Your task to perform on an android device: Open eBay Image 0: 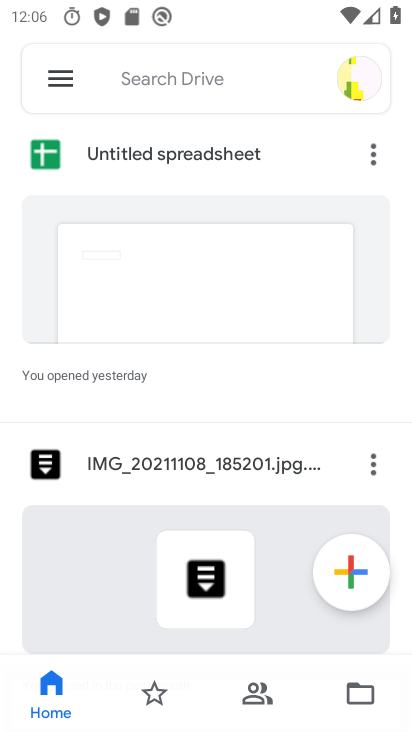
Step 0: press home button
Your task to perform on an android device: Open eBay Image 1: 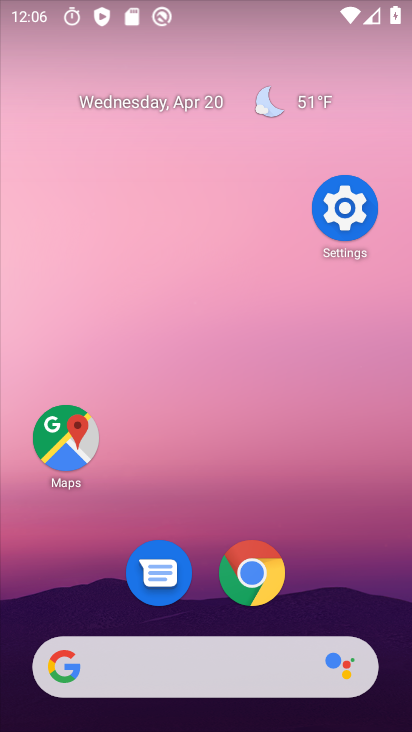
Step 1: click (259, 592)
Your task to perform on an android device: Open eBay Image 2: 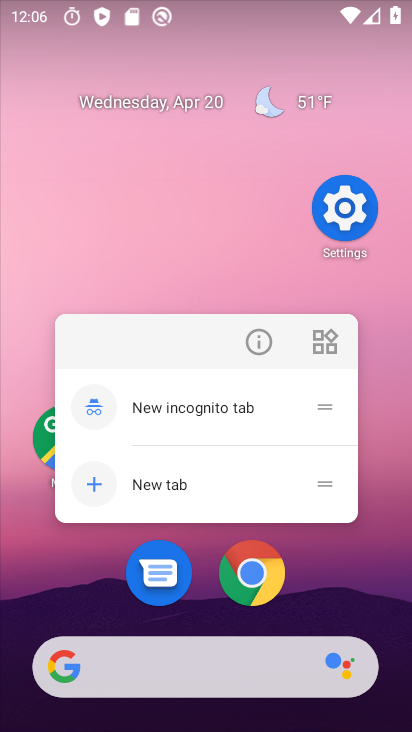
Step 2: click (236, 580)
Your task to perform on an android device: Open eBay Image 3: 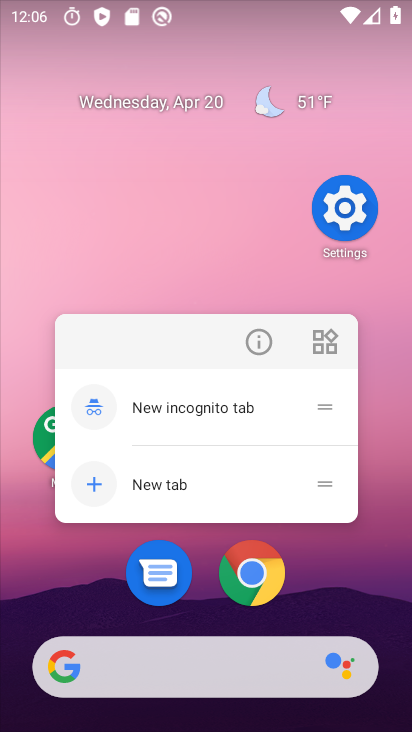
Step 3: click (232, 558)
Your task to perform on an android device: Open eBay Image 4: 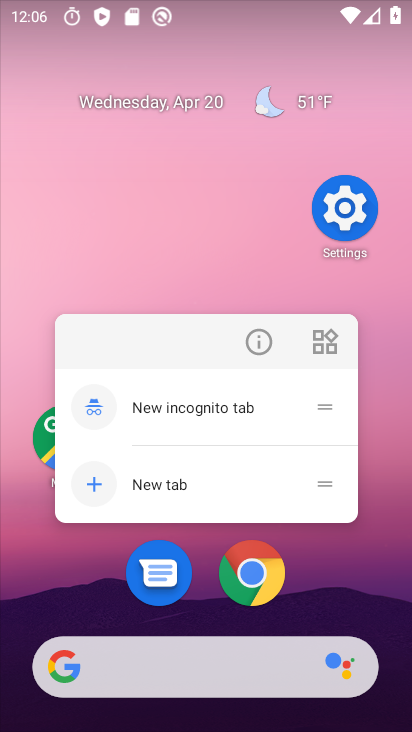
Step 4: click (256, 574)
Your task to perform on an android device: Open eBay Image 5: 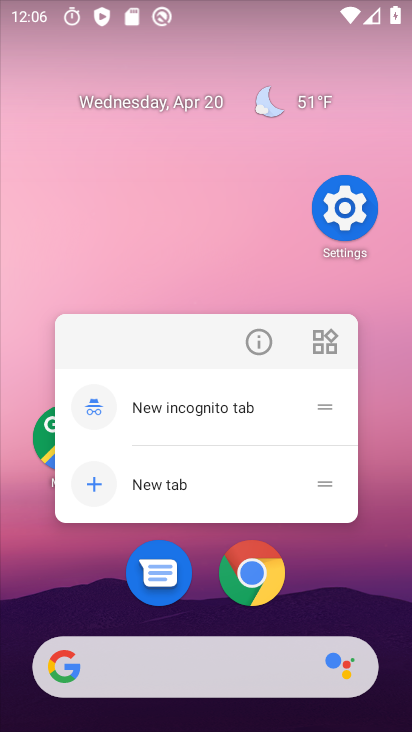
Step 5: click (257, 575)
Your task to perform on an android device: Open eBay Image 6: 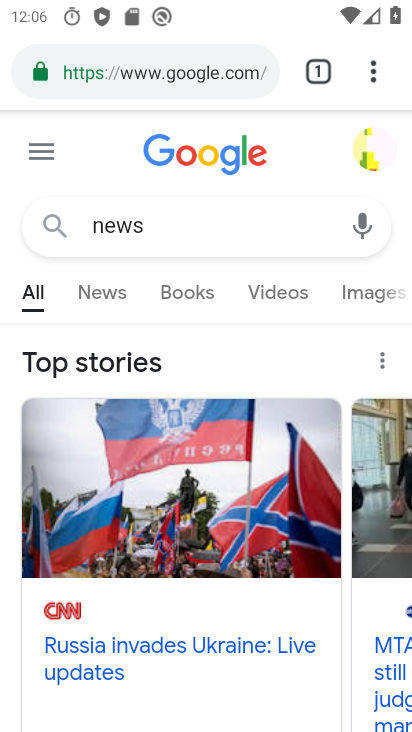
Step 6: click (230, 80)
Your task to perform on an android device: Open eBay Image 7: 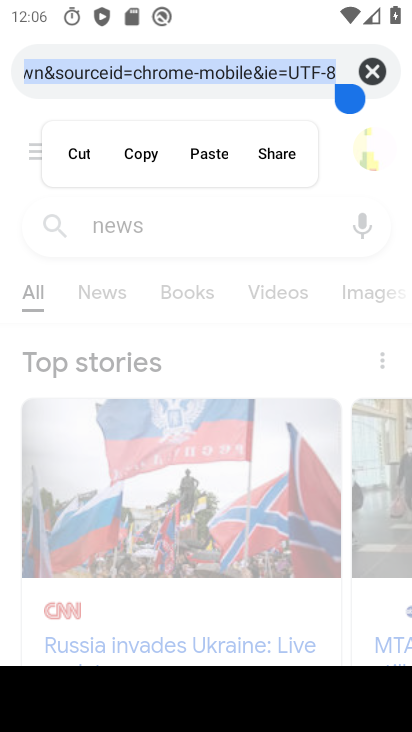
Step 7: type "ebay"
Your task to perform on an android device: Open eBay Image 8: 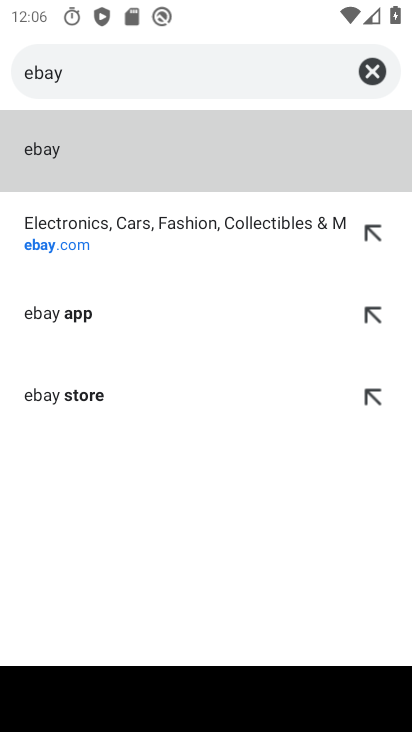
Step 8: click (48, 159)
Your task to perform on an android device: Open eBay Image 9: 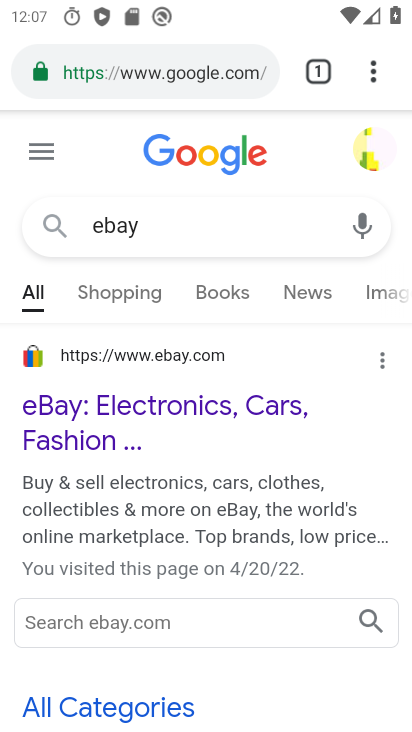
Step 9: click (111, 419)
Your task to perform on an android device: Open eBay Image 10: 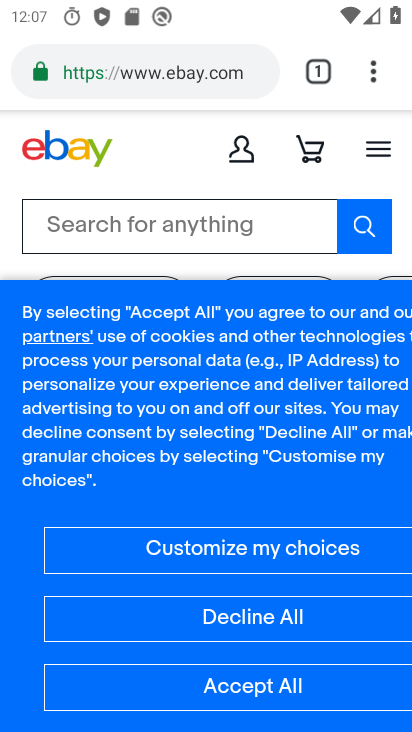
Step 10: task complete